Your task to perform on an android device: Open display settings Image 0: 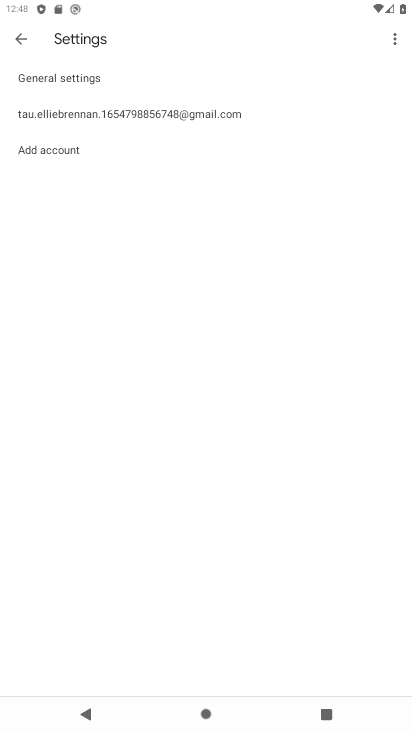
Step 0: press home button
Your task to perform on an android device: Open display settings Image 1: 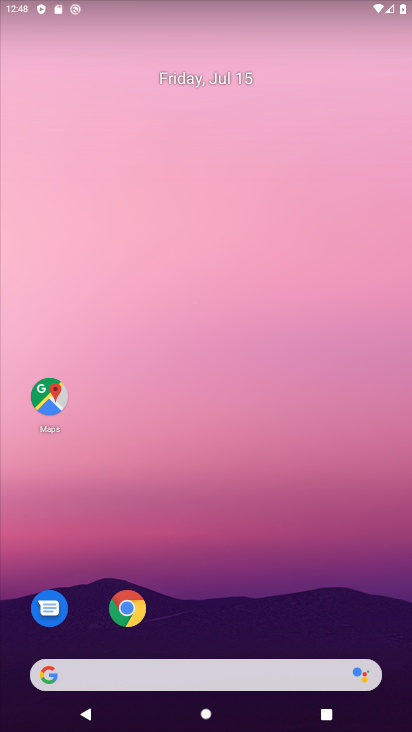
Step 1: drag from (238, 618) to (340, 0)
Your task to perform on an android device: Open display settings Image 2: 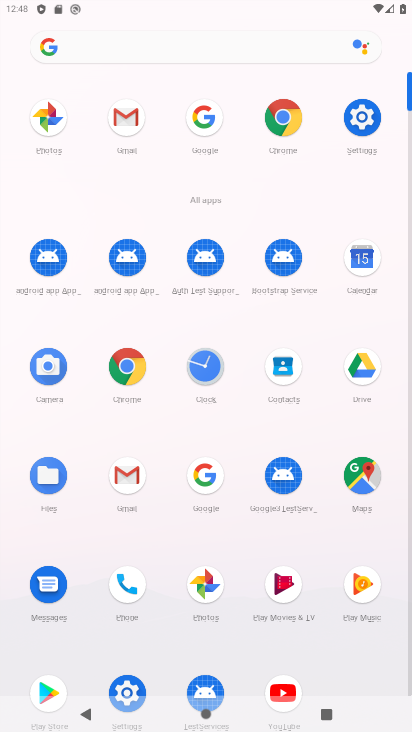
Step 2: click (363, 116)
Your task to perform on an android device: Open display settings Image 3: 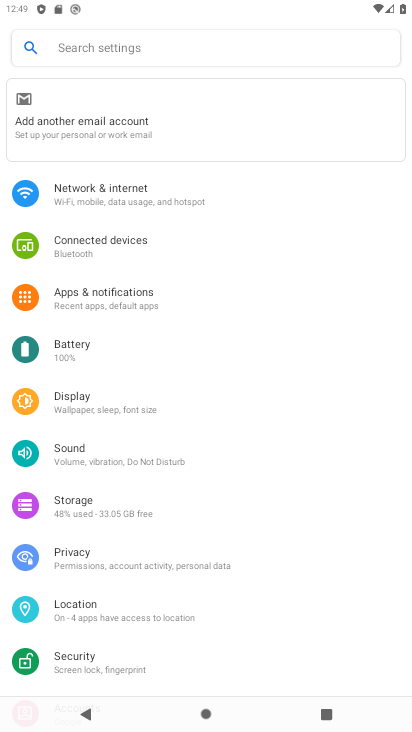
Step 3: click (106, 404)
Your task to perform on an android device: Open display settings Image 4: 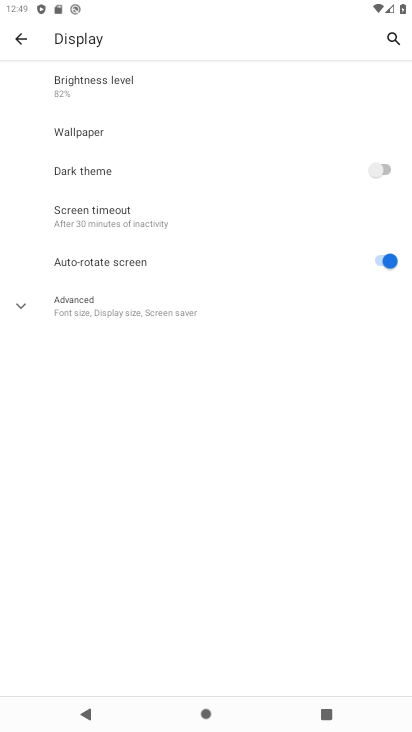
Step 4: task complete